Your task to perform on an android device: Open Google Chrome Image 0: 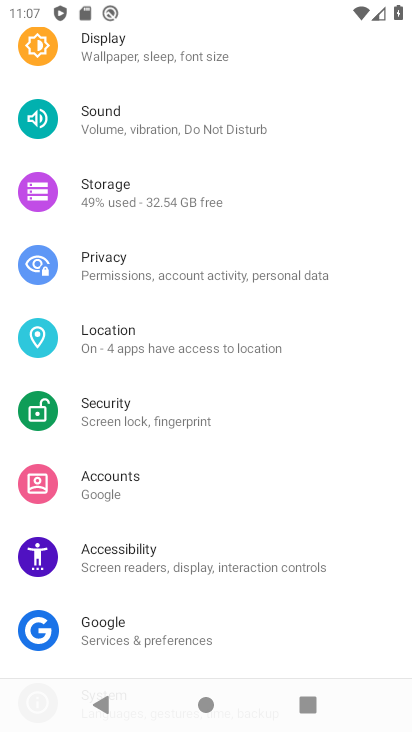
Step 0: press home button
Your task to perform on an android device: Open Google Chrome Image 1: 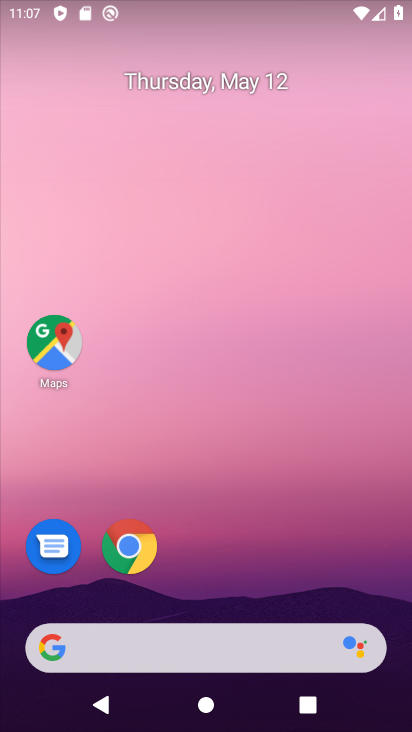
Step 1: click (129, 544)
Your task to perform on an android device: Open Google Chrome Image 2: 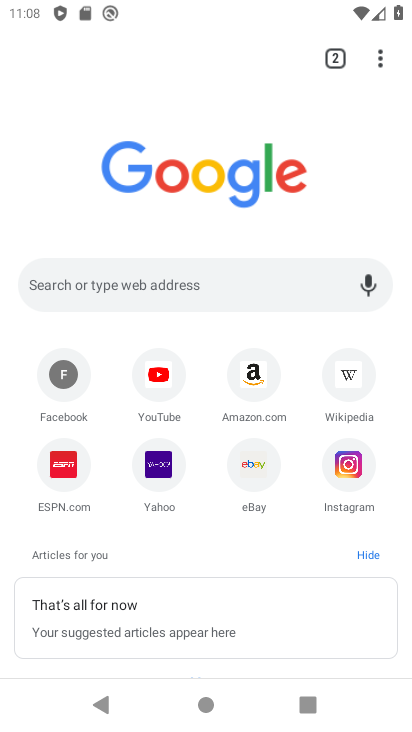
Step 2: task complete